Your task to perform on an android device: empty trash in google photos Image 0: 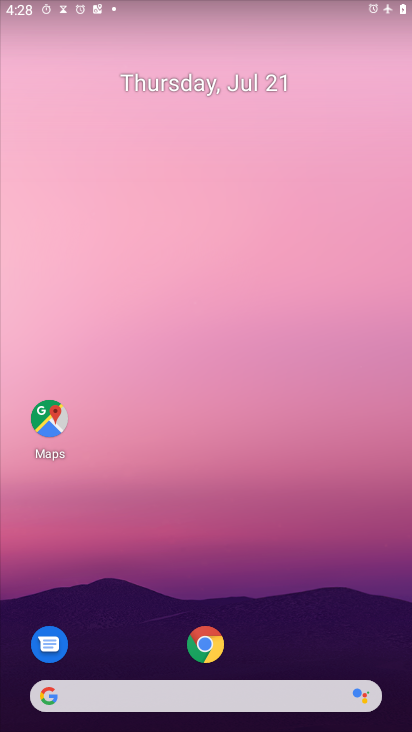
Step 0: press home button
Your task to perform on an android device: empty trash in google photos Image 1: 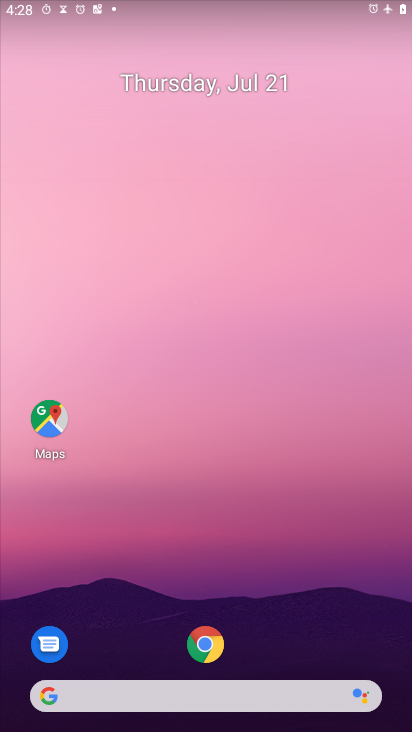
Step 1: drag from (327, 643) to (288, 2)
Your task to perform on an android device: empty trash in google photos Image 2: 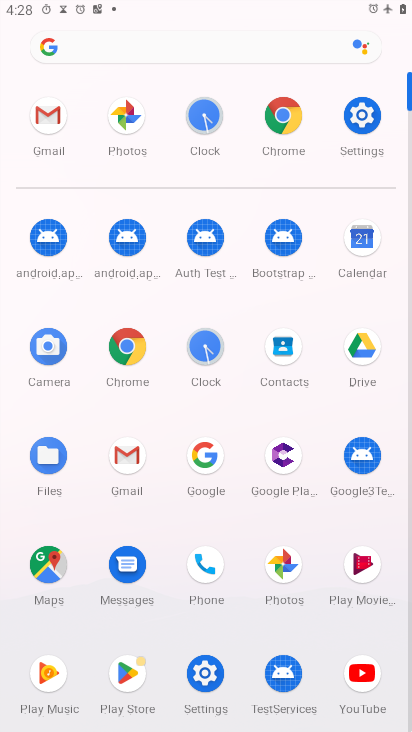
Step 2: click (275, 560)
Your task to perform on an android device: empty trash in google photos Image 3: 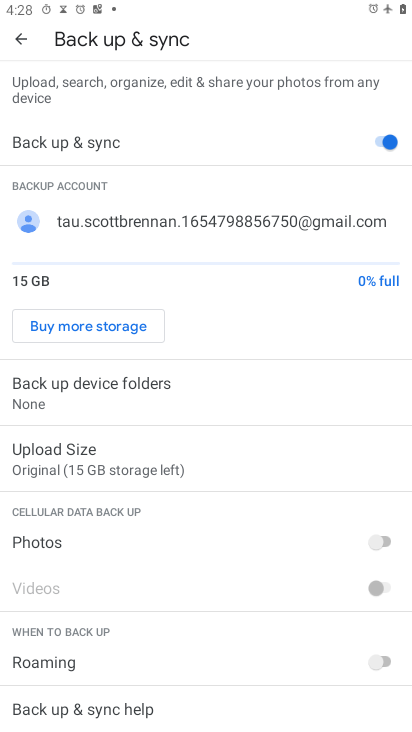
Step 3: click (18, 32)
Your task to perform on an android device: empty trash in google photos Image 4: 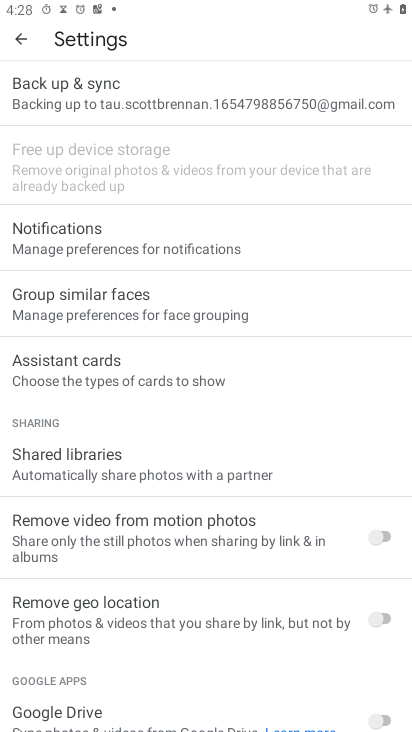
Step 4: click (19, 30)
Your task to perform on an android device: empty trash in google photos Image 5: 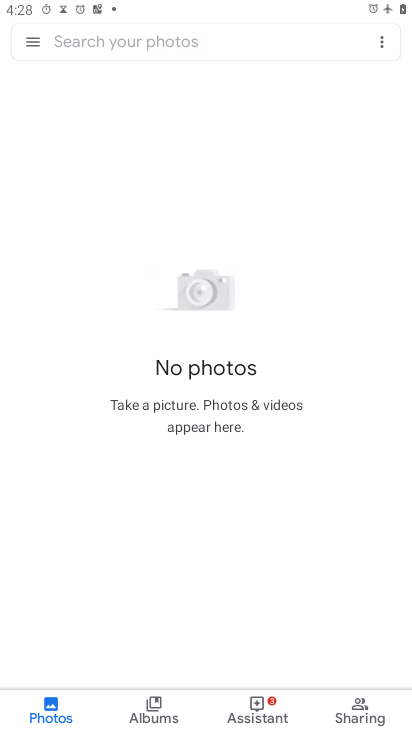
Step 5: click (34, 52)
Your task to perform on an android device: empty trash in google photos Image 6: 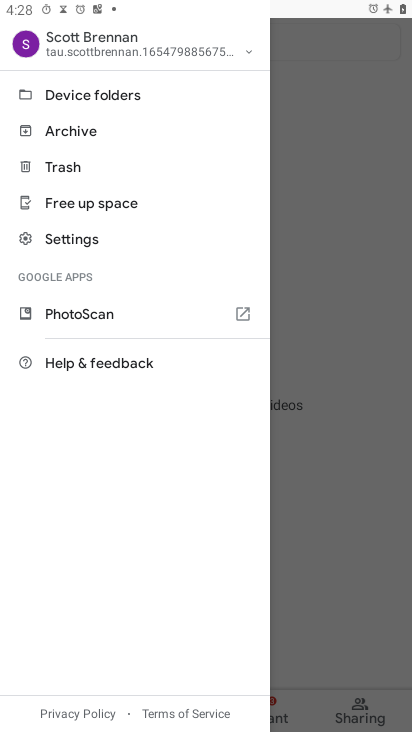
Step 6: click (67, 171)
Your task to perform on an android device: empty trash in google photos Image 7: 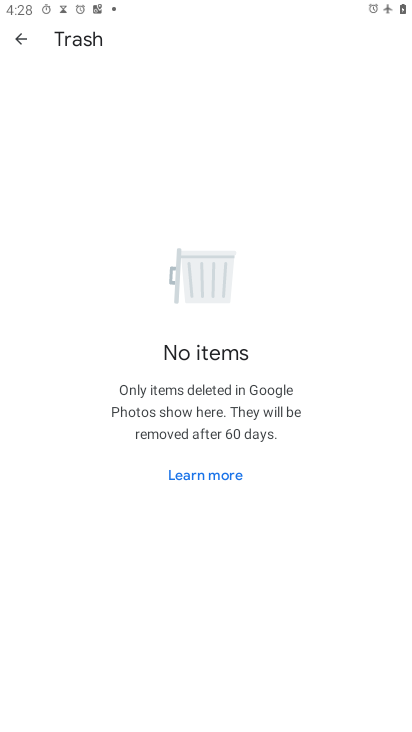
Step 7: task complete